Your task to perform on an android device: Show me the best 1080p monitor on Target.com Image 0: 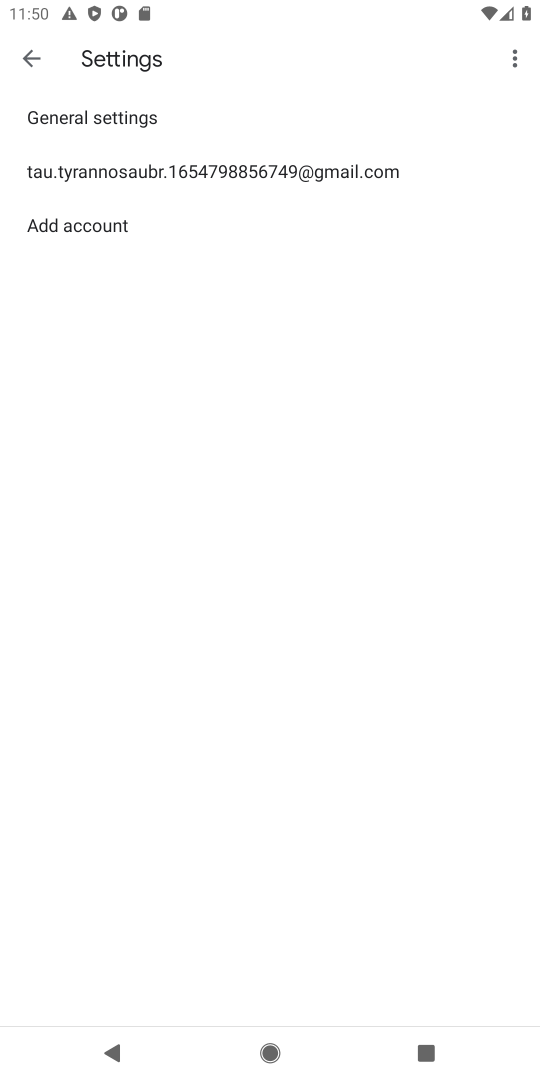
Step 0: press home button
Your task to perform on an android device: Show me the best 1080p monitor on Target.com Image 1: 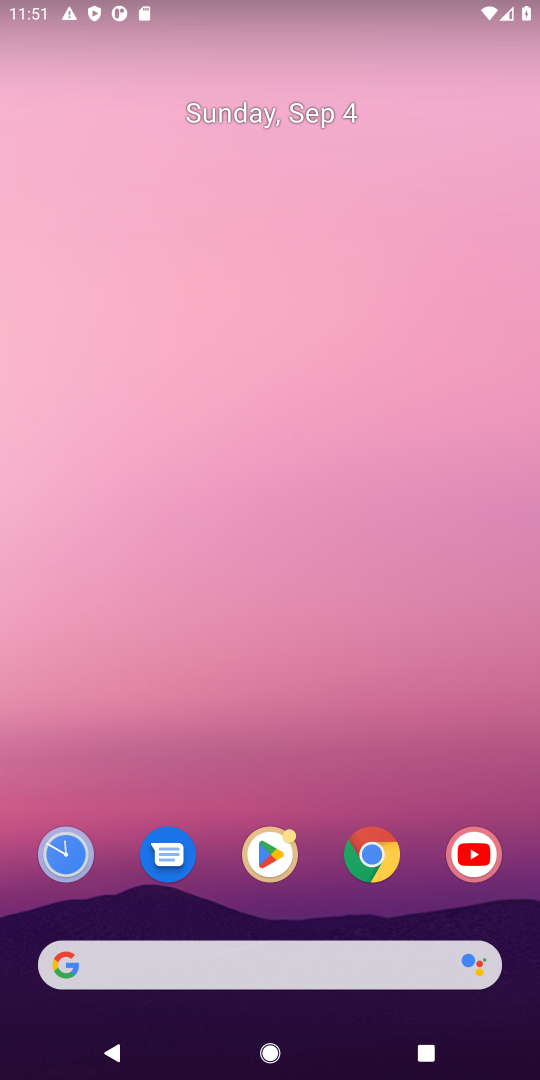
Step 1: click (334, 965)
Your task to perform on an android device: Show me the best 1080p monitor on Target.com Image 2: 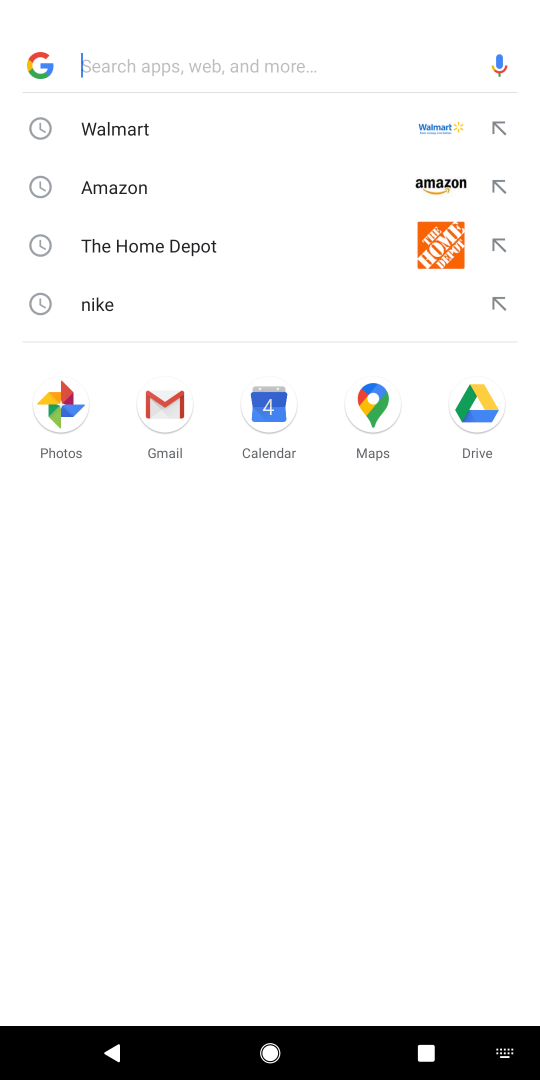
Step 2: type "target.com"
Your task to perform on an android device: Show me the best 1080p monitor on Target.com Image 3: 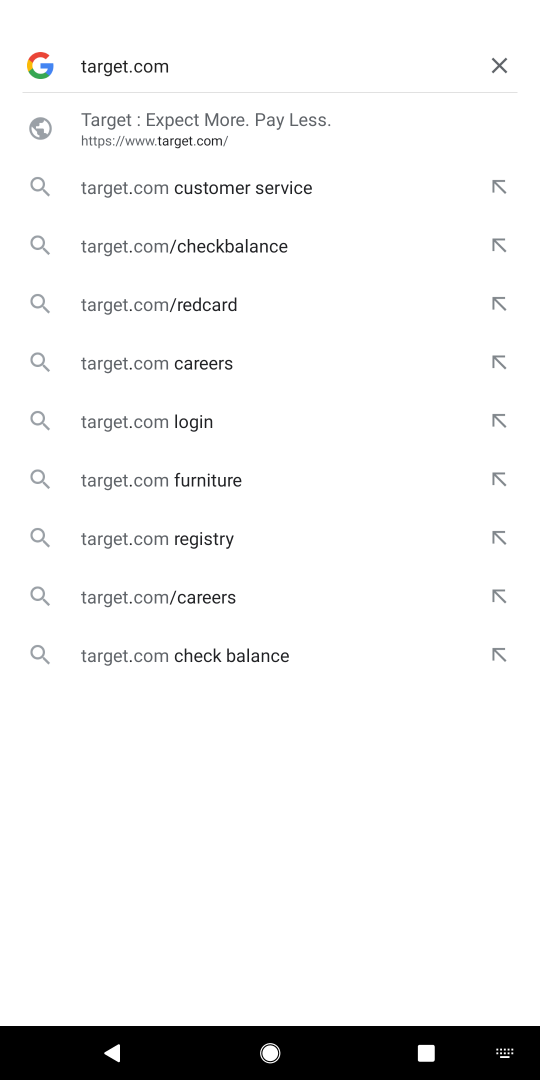
Step 3: press enter
Your task to perform on an android device: Show me the best 1080p monitor on Target.com Image 4: 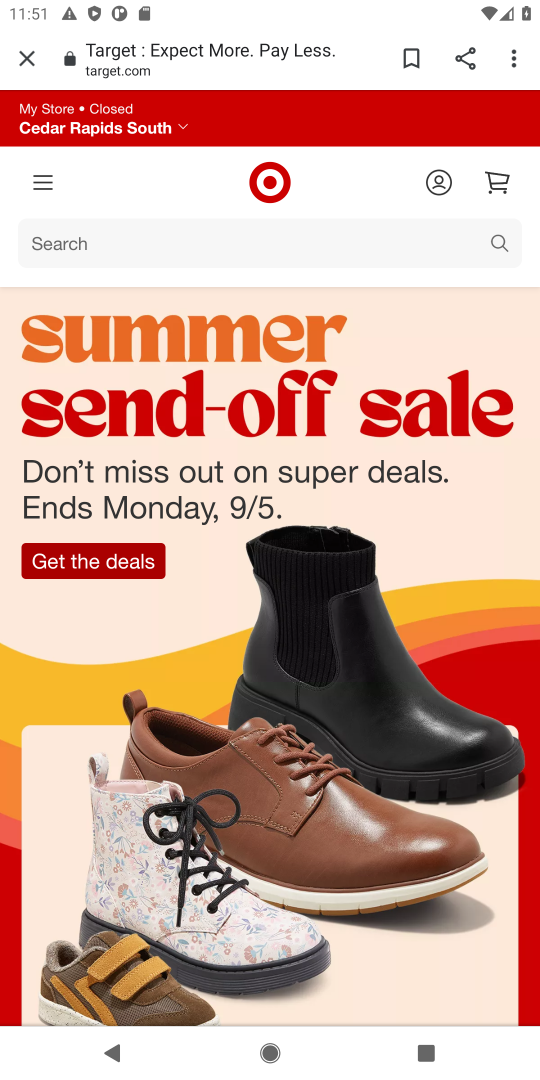
Step 4: click (112, 246)
Your task to perform on an android device: Show me the best 1080p monitor on Target.com Image 5: 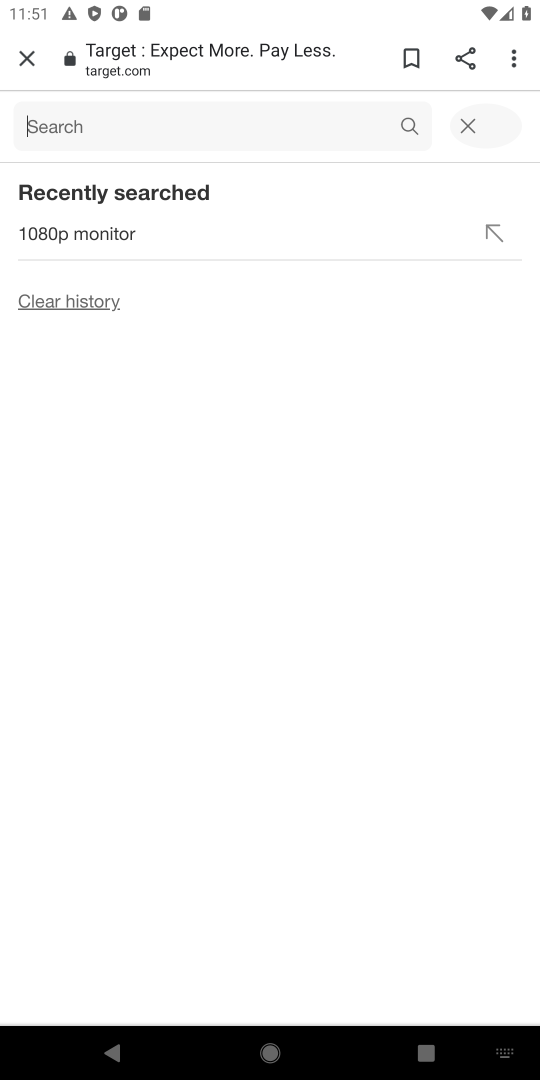
Step 5: click (164, 132)
Your task to perform on an android device: Show me the best 1080p monitor on Target.com Image 6: 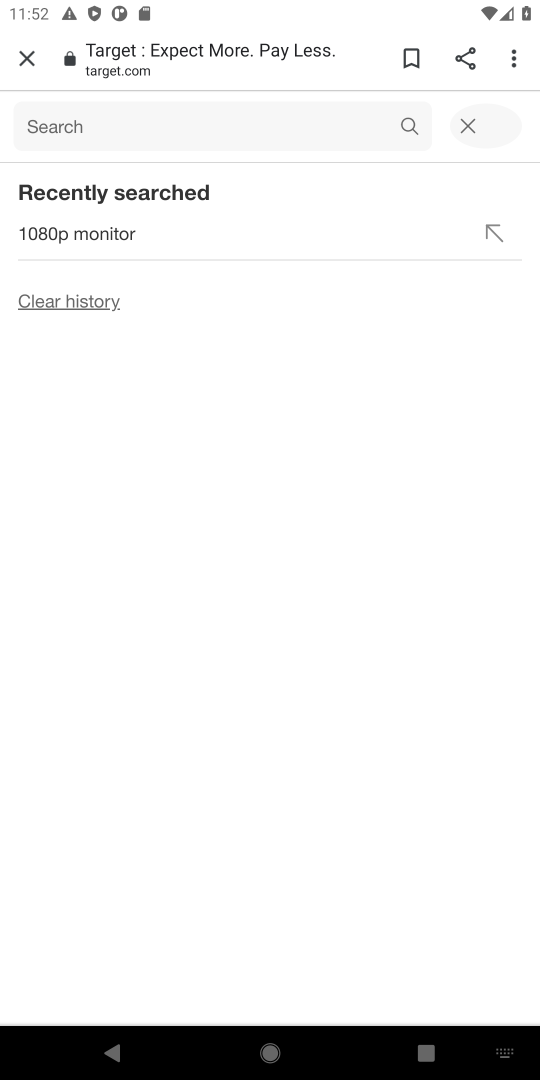
Step 6: type "best 1080p monitor"
Your task to perform on an android device: Show me the best 1080p monitor on Target.com Image 7: 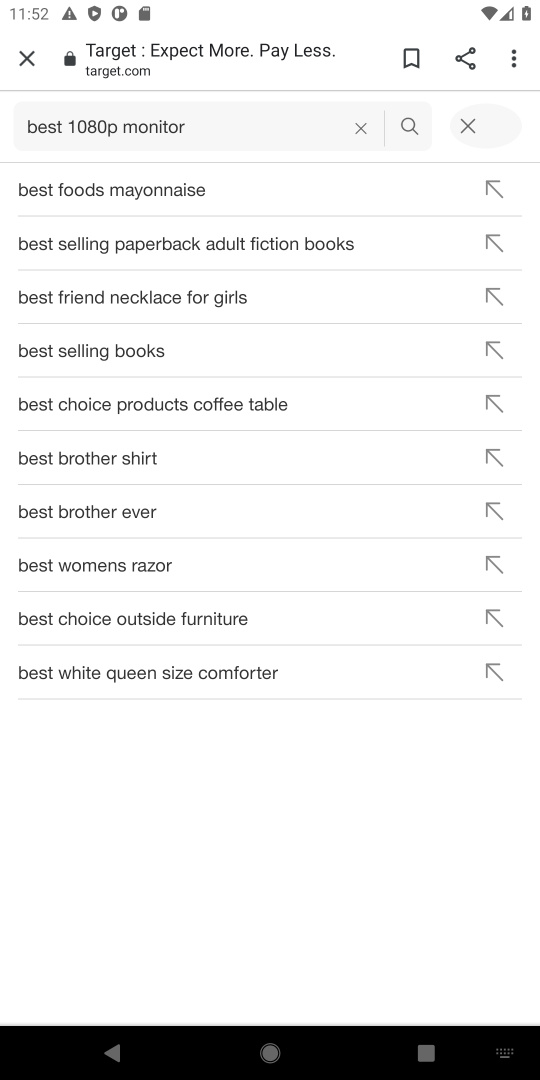
Step 7: click (414, 124)
Your task to perform on an android device: Show me the best 1080p monitor on Target.com Image 8: 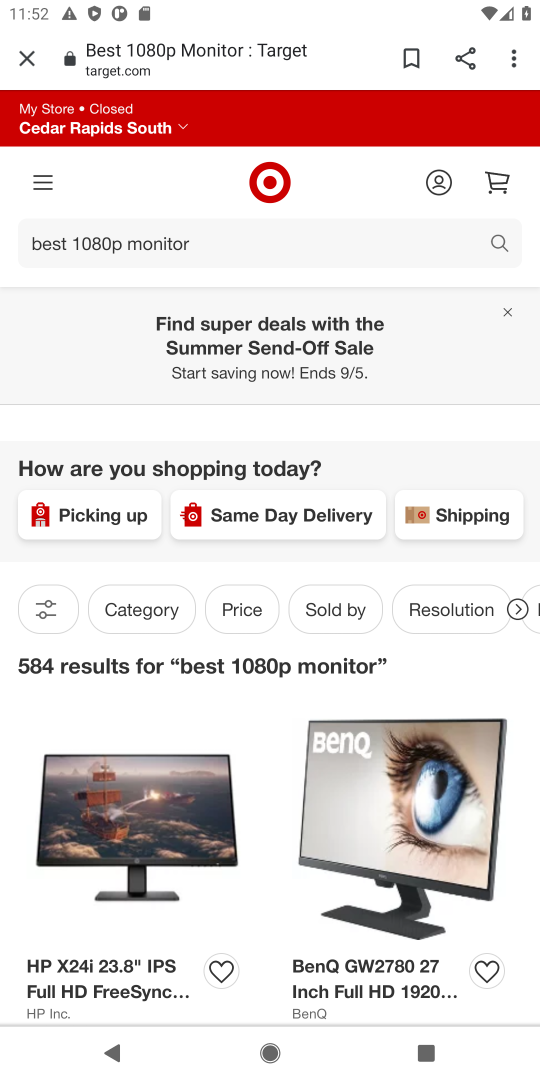
Step 8: task complete